Your task to perform on an android device: Open notification settings Image 0: 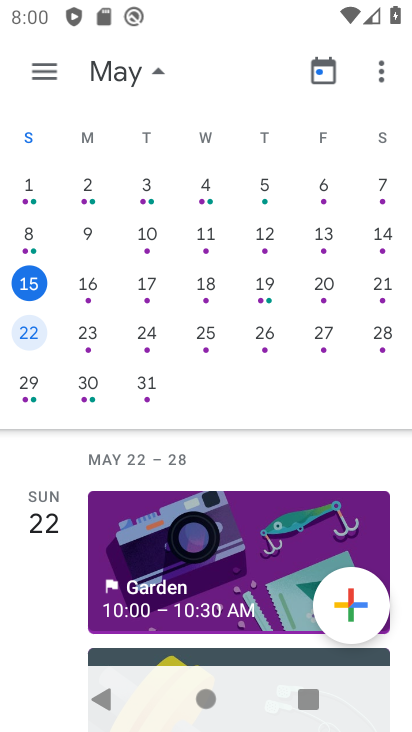
Step 0: press home button
Your task to perform on an android device: Open notification settings Image 1: 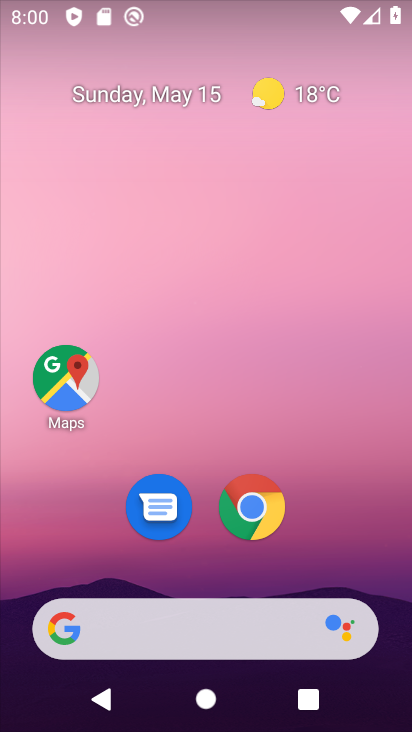
Step 1: drag from (10, 648) to (311, 146)
Your task to perform on an android device: Open notification settings Image 2: 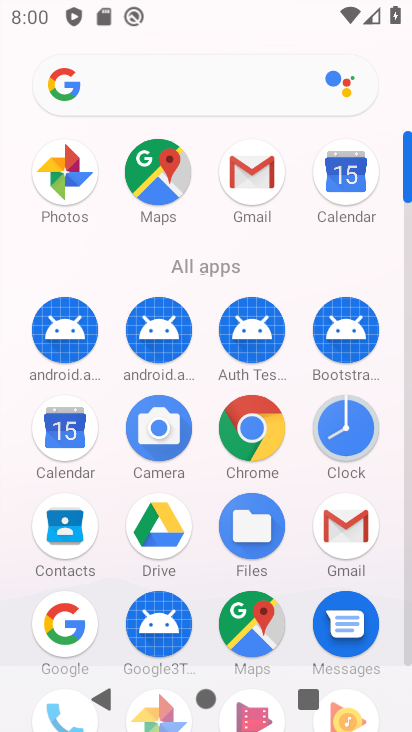
Step 2: drag from (189, 578) to (410, 142)
Your task to perform on an android device: Open notification settings Image 3: 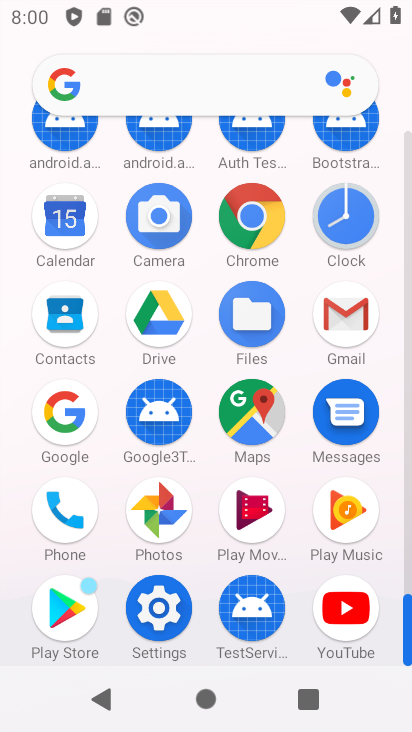
Step 3: click (161, 601)
Your task to perform on an android device: Open notification settings Image 4: 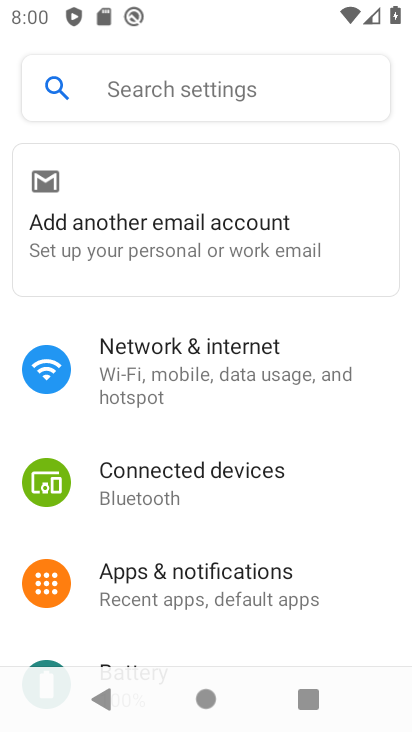
Step 4: click (186, 599)
Your task to perform on an android device: Open notification settings Image 5: 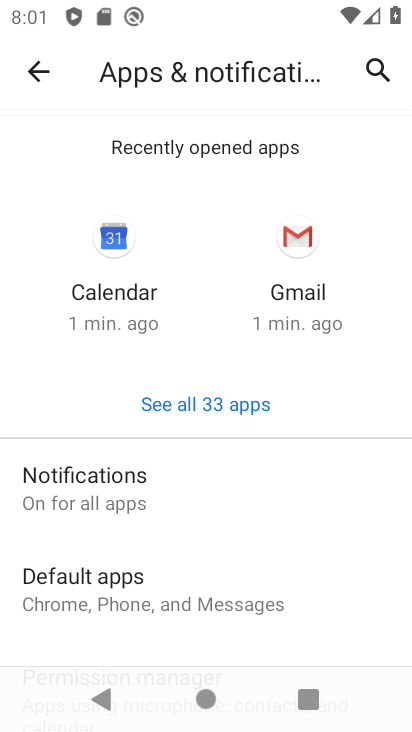
Step 5: click (143, 486)
Your task to perform on an android device: Open notification settings Image 6: 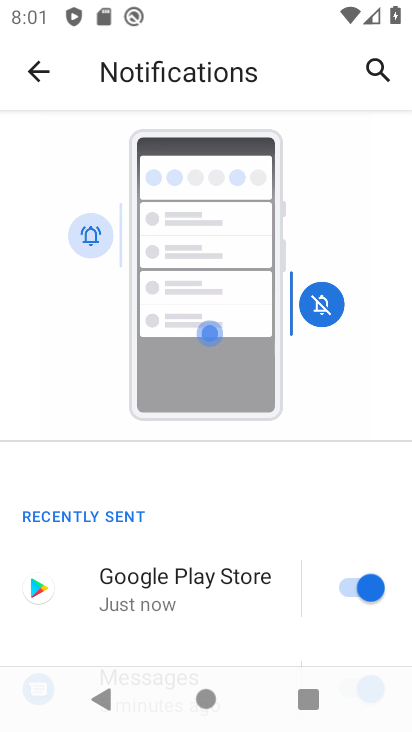
Step 6: task complete